Your task to perform on an android device: Go to ESPN.com Image 0: 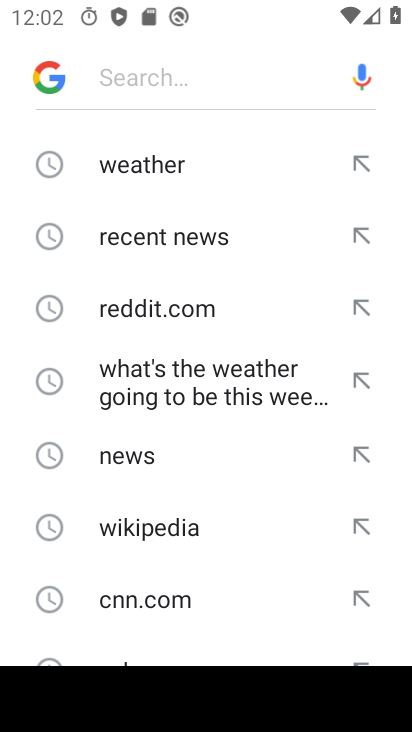
Step 0: type "ESPN.com"
Your task to perform on an android device: Go to ESPN.com Image 1: 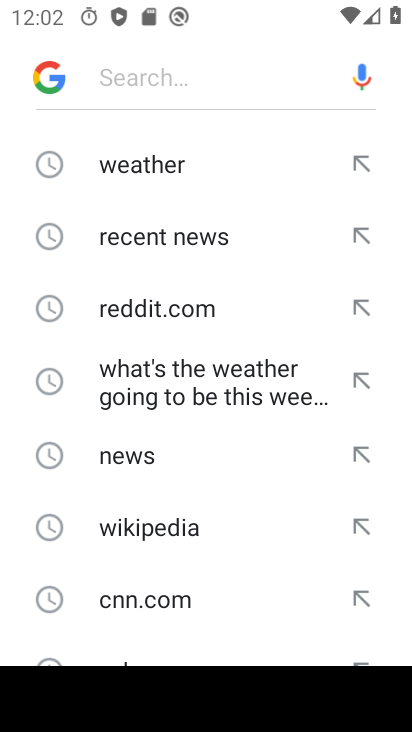
Step 1: click (114, 88)
Your task to perform on an android device: Go to ESPN.com Image 2: 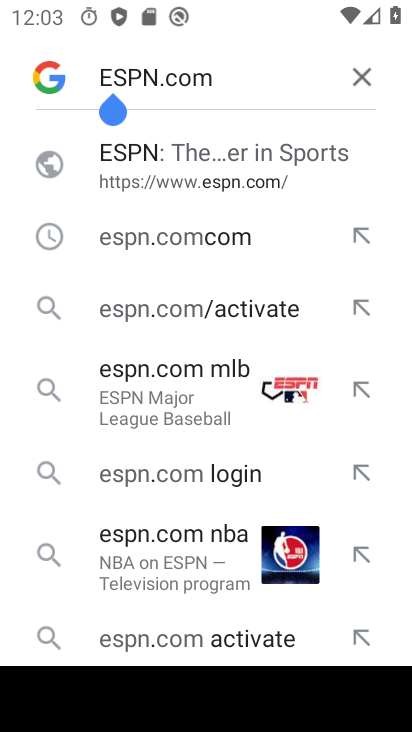
Step 2: click (128, 164)
Your task to perform on an android device: Go to ESPN.com Image 3: 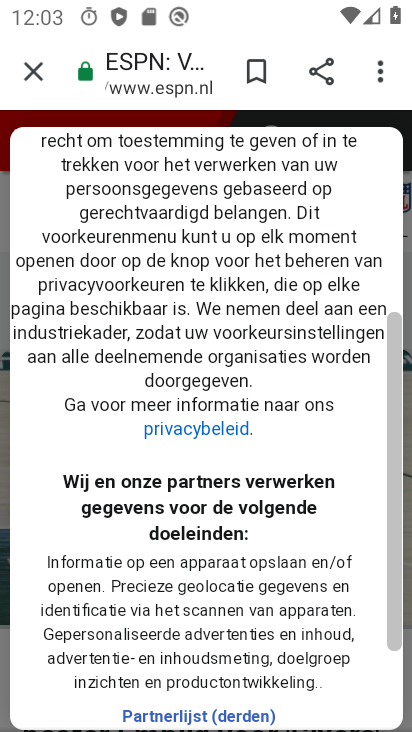
Step 3: task complete